Your task to perform on an android device: check storage Image 0: 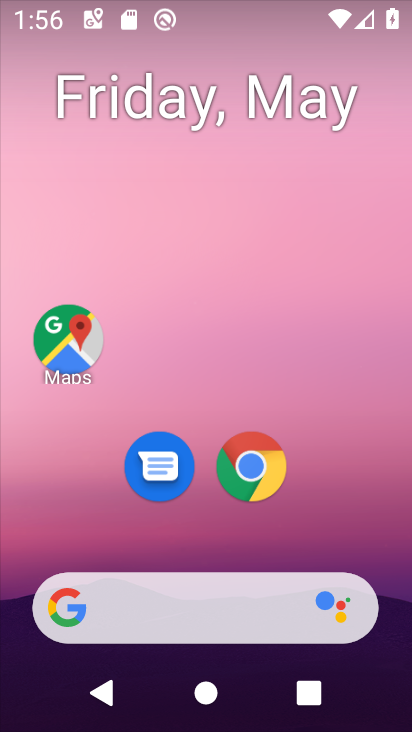
Step 0: drag from (366, 503) to (406, 264)
Your task to perform on an android device: check storage Image 1: 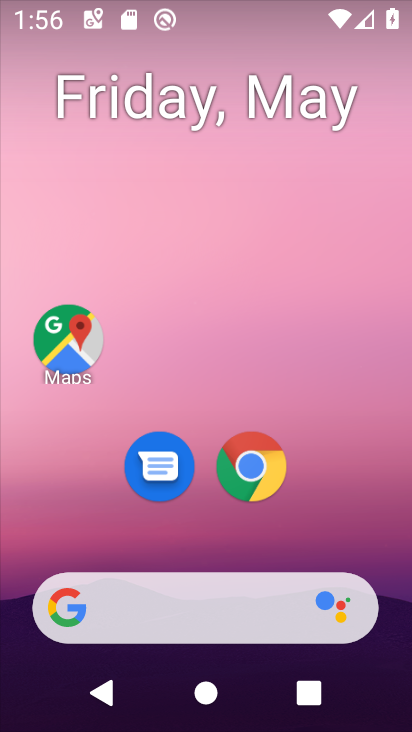
Step 1: drag from (382, 429) to (407, 32)
Your task to perform on an android device: check storage Image 2: 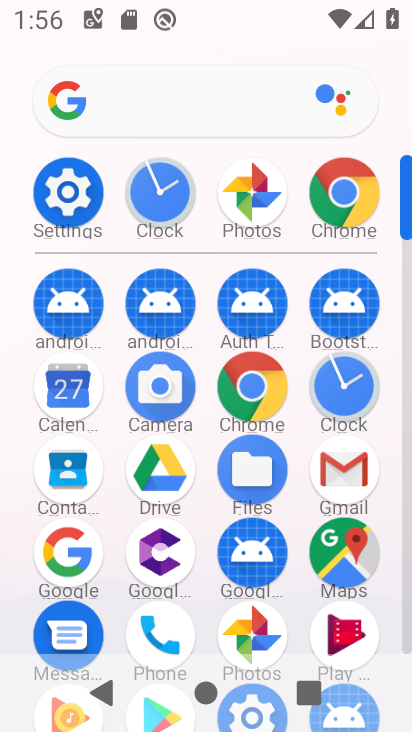
Step 2: click (57, 197)
Your task to perform on an android device: check storage Image 3: 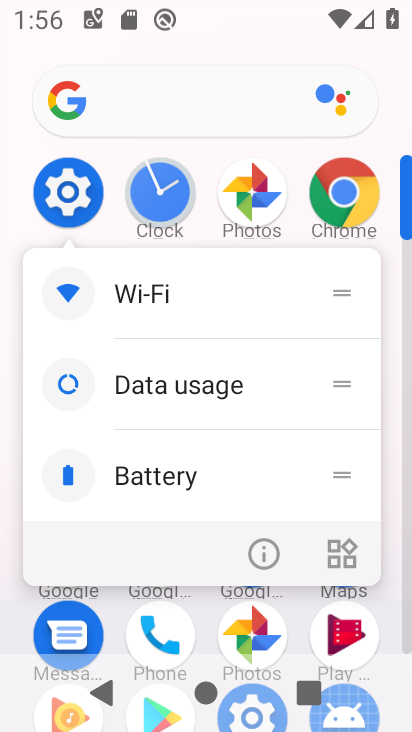
Step 3: click (57, 197)
Your task to perform on an android device: check storage Image 4: 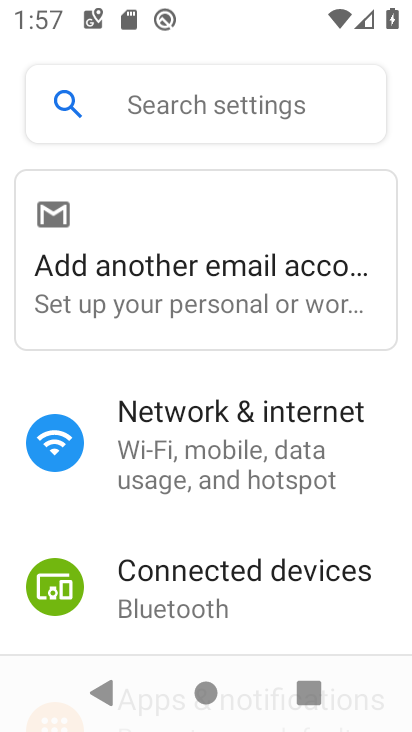
Step 4: drag from (218, 594) to (275, 135)
Your task to perform on an android device: check storage Image 5: 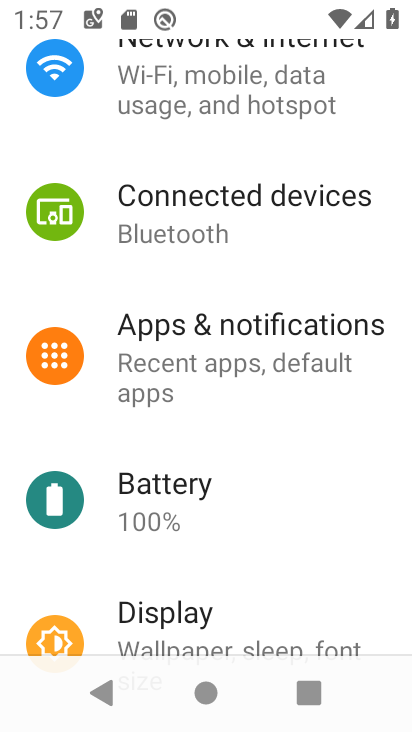
Step 5: drag from (225, 572) to (267, 152)
Your task to perform on an android device: check storage Image 6: 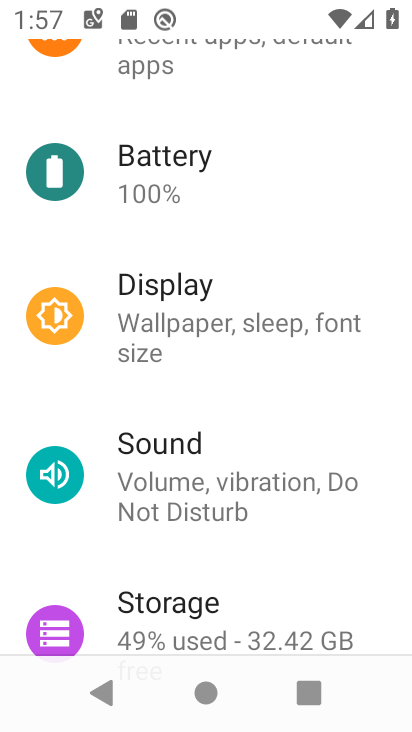
Step 6: drag from (197, 607) to (267, 174)
Your task to perform on an android device: check storage Image 7: 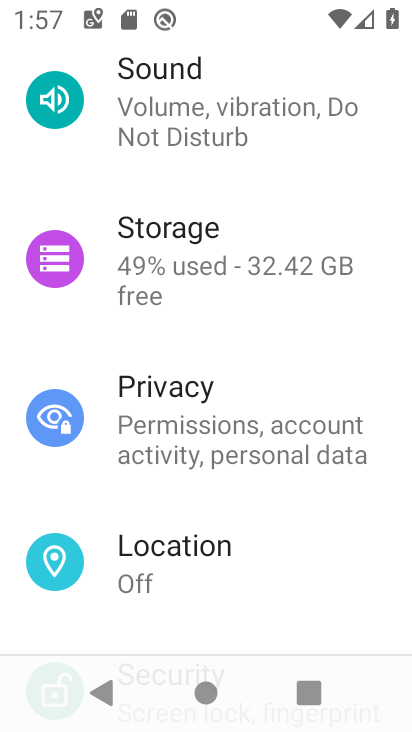
Step 7: click (226, 289)
Your task to perform on an android device: check storage Image 8: 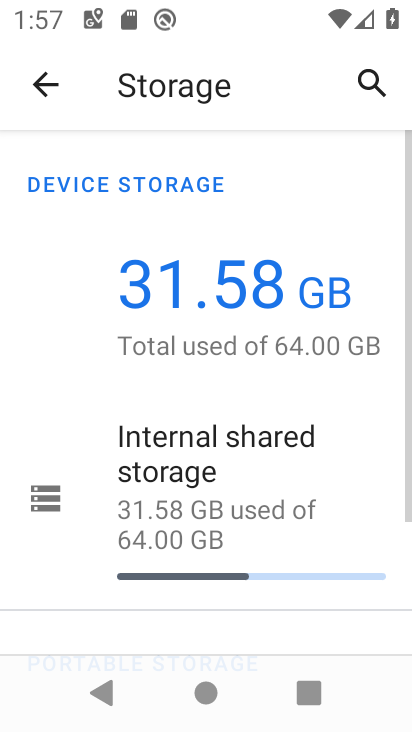
Step 8: drag from (176, 528) to (221, 170)
Your task to perform on an android device: check storage Image 9: 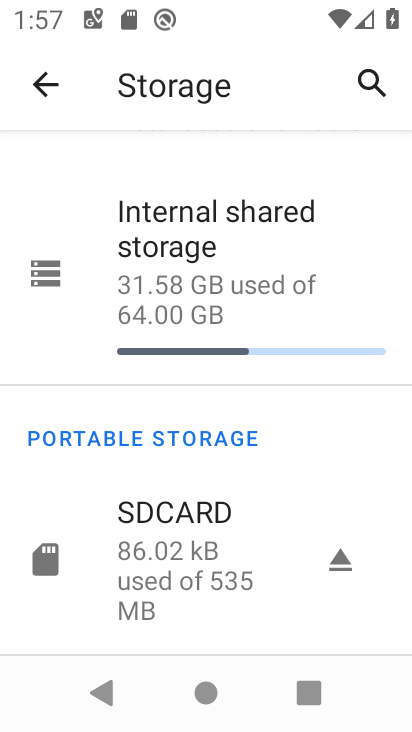
Step 9: click (190, 321)
Your task to perform on an android device: check storage Image 10: 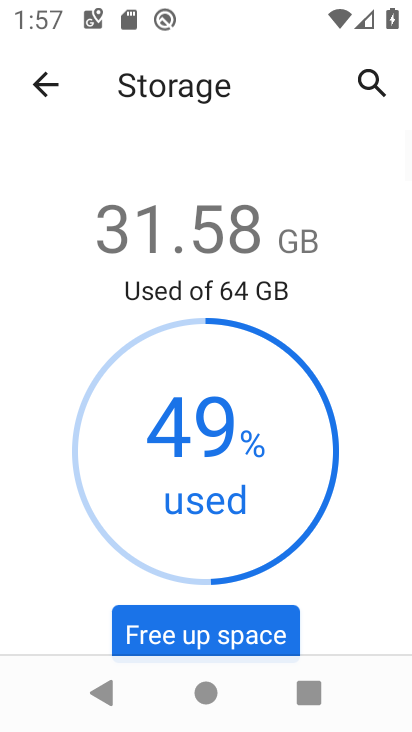
Step 10: task complete